Your task to perform on an android device: Open internet settings Image 0: 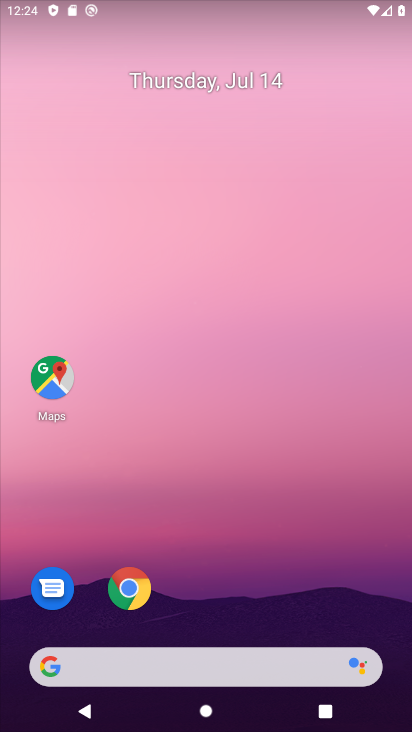
Step 0: press home button
Your task to perform on an android device: Open internet settings Image 1: 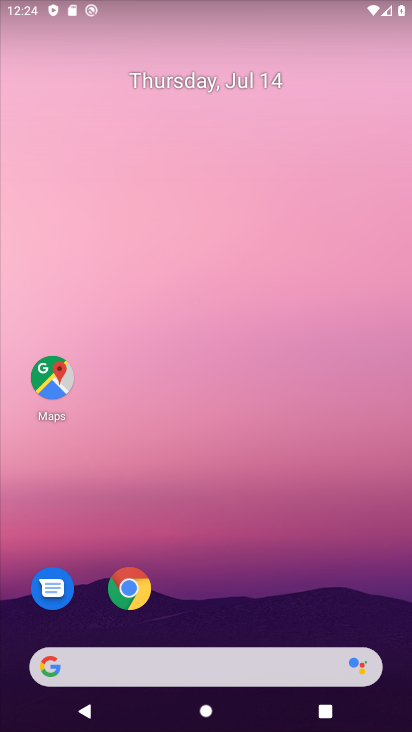
Step 1: drag from (190, 667) to (368, 96)
Your task to perform on an android device: Open internet settings Image 2: 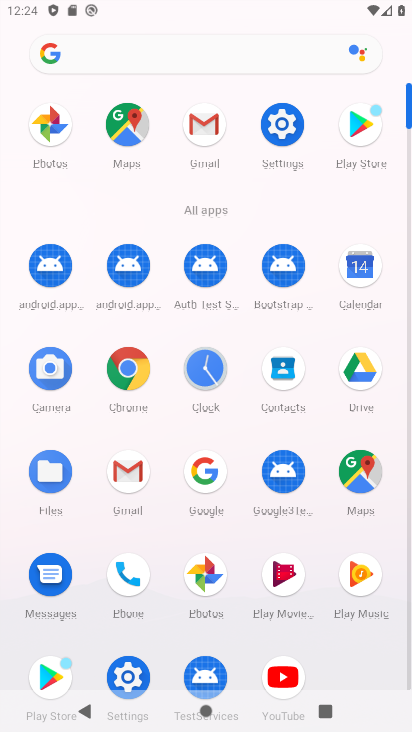
Step 2: click (285, 137)
Your task to perform on an android device: Open internet settings Image 3: 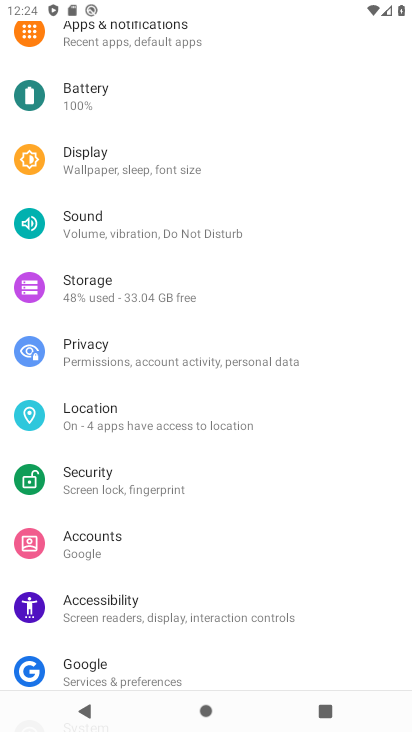
Step 3: task complete